Your task to perform on an android device: turn off improve location accuracy Image 0: 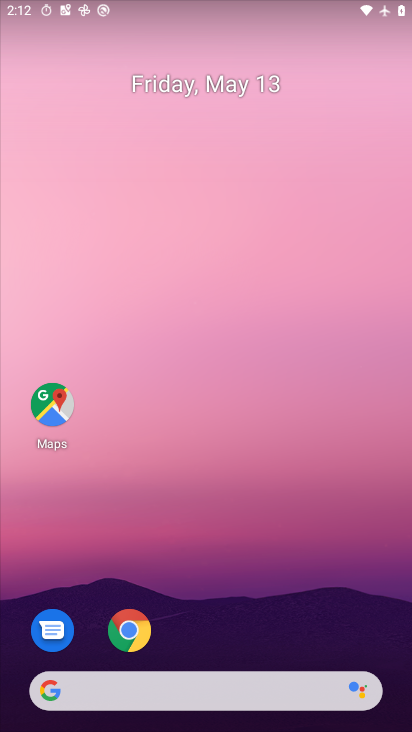
Step 0: drag from (260, 636) to (238, 230)
Your task to perform on an android device: turn off improve location accuracy Image 1: 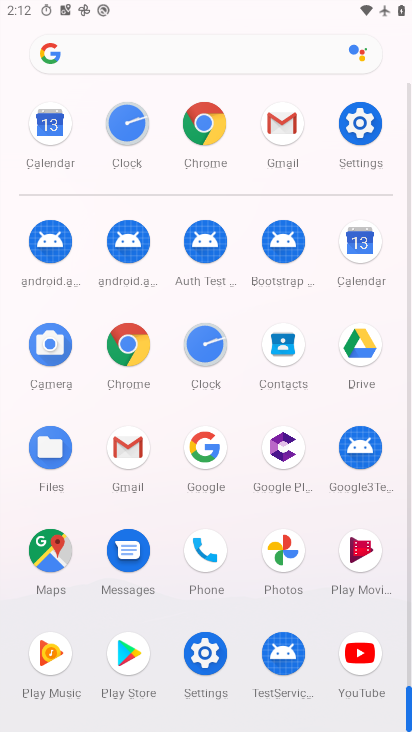
Step 1: click (357, 145)
Your task to perform on an android device: turn off improve location accuracy Image 2: 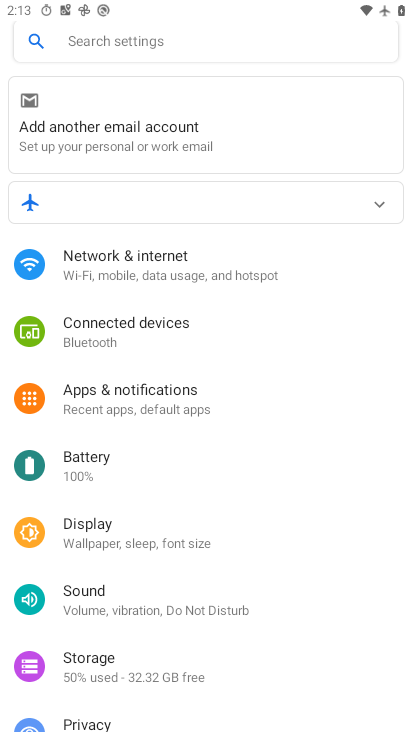
Step 2: drag from (203, 635) to (221, 339)
Your task to perform on an android device: turn off improve location accuracy Image 3: 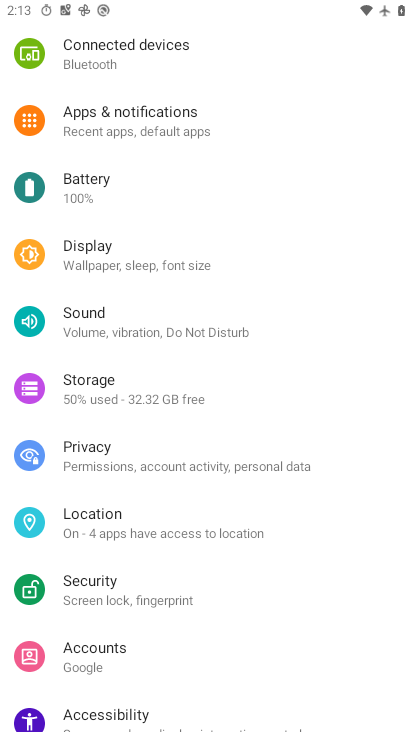
Step 3: click (177, 532)
Your task to perform on an android device: turn off improve location accuracy Image 4: 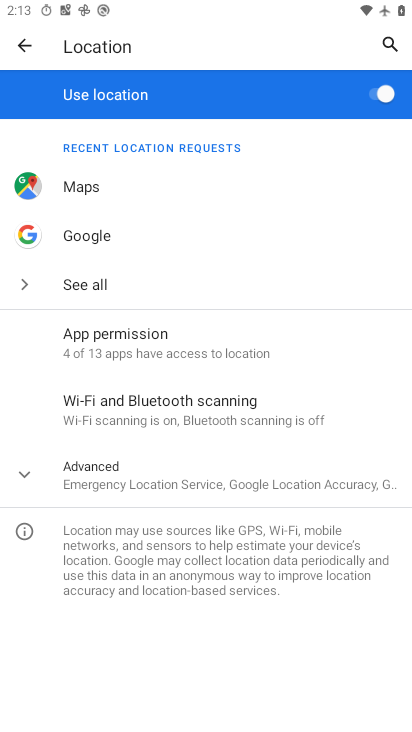
Step 4: click (154, 472)
Your task to perform on an android device: turn off improve location accuracy Image 5: 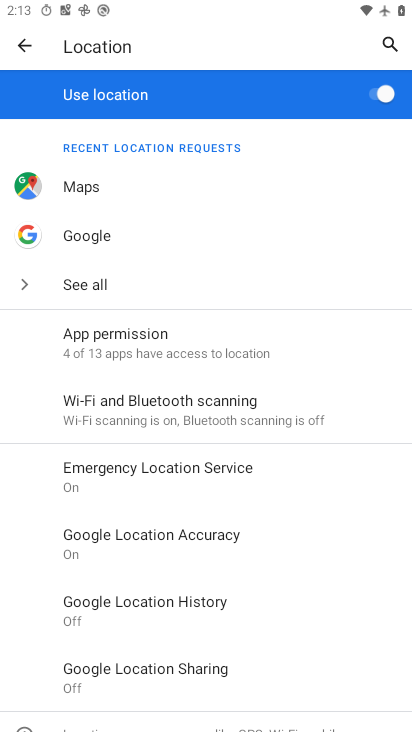
Step 5: click (225, 547)
Your task to perform on an android device: turn off improve location accuracy Image 6: 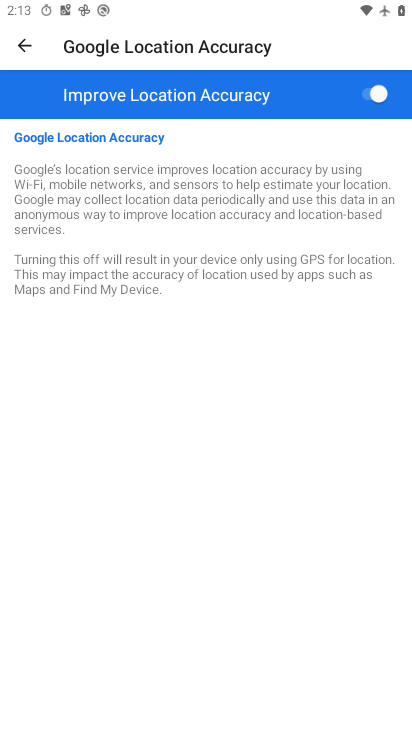
Step 6: click (360, 104)
Your task to perform on an android device: turn off improve location accuracy Image 7: 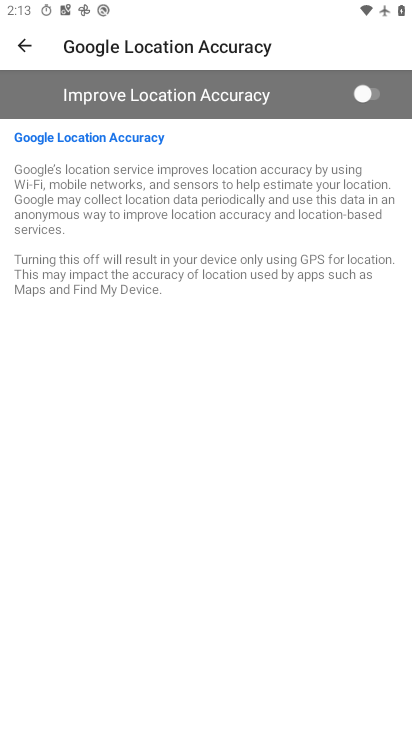
Step 7: click (369, 99)
Your task to perform on an android device: turn off improve location accuracy Image 8: 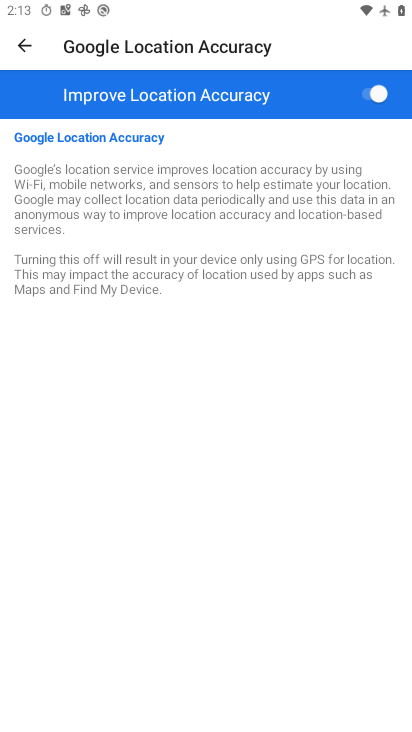
Step 8: click (374, 97)
Your task to perform on an android device: turn off improve location accuracy Image 9: 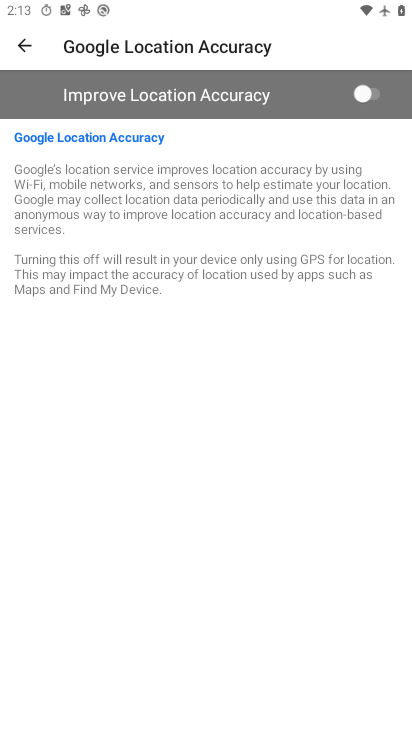
Step 9: task complete